Your task to perform on an android device: turn on bluetooth scan Image 0: 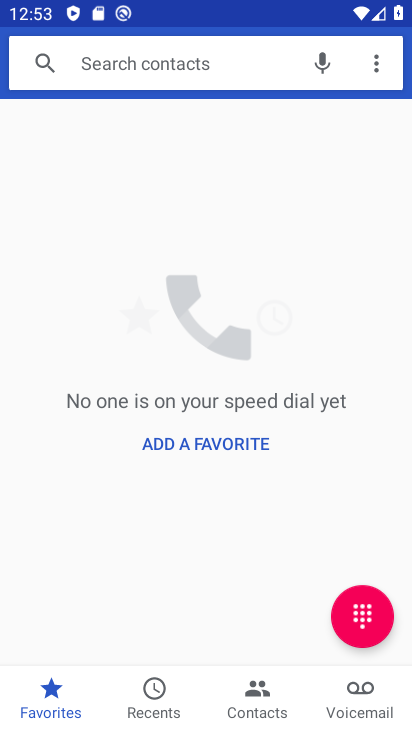
Step 0: press home button
Your task to perform on an android device: turn on bluetooth scan Image 1: 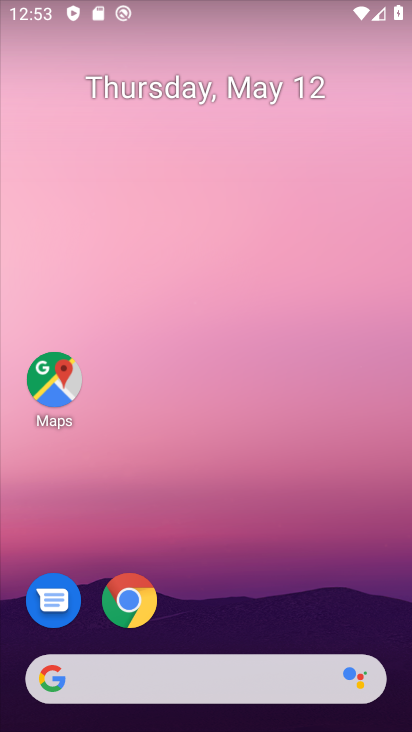
Step 1: drag from (192, 640) to (274, 124)
Your task to perform on an android device: turn on bluetooth scan Image 2: 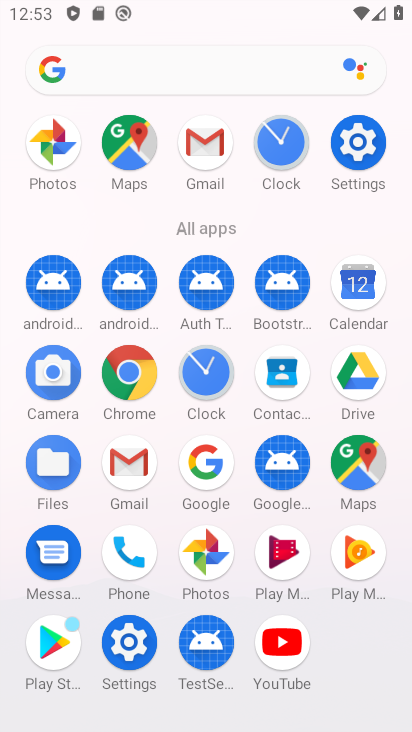
Step 2: click (135, 646)
Your task to perform on an android device: turn on bluetooth scan Image 3: 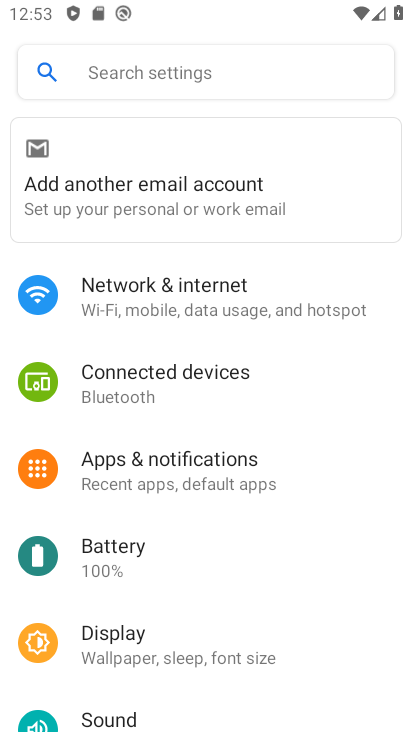
Step 3: click (248, 383)
Your task to perform on an android device: turn on bluetooth scan Image 4: 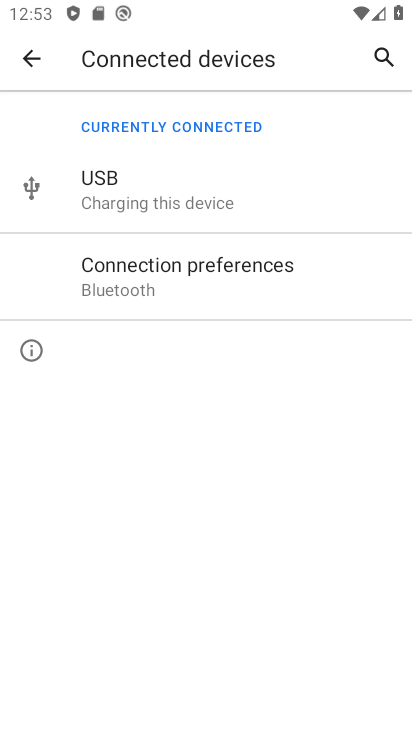
Step 4: click (228, 260)
Your task to perform on an android device: turn on bluetooth scan Image 5: 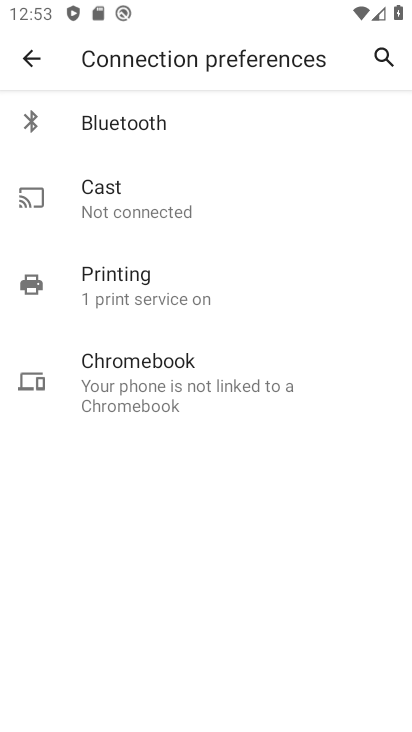
Step 5: click (197, 142)
Your task to perform on an android device: turn on bluetooth scan Image 6: 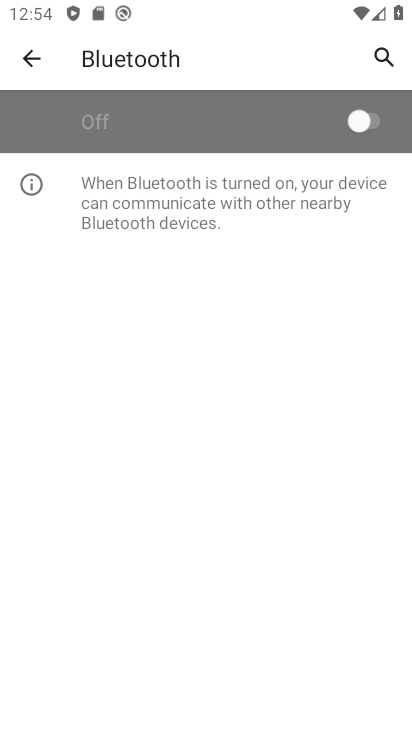
Step 6: click (382, 118)
Your task to perform on an android device: turn on bluetooth scan Image 7: 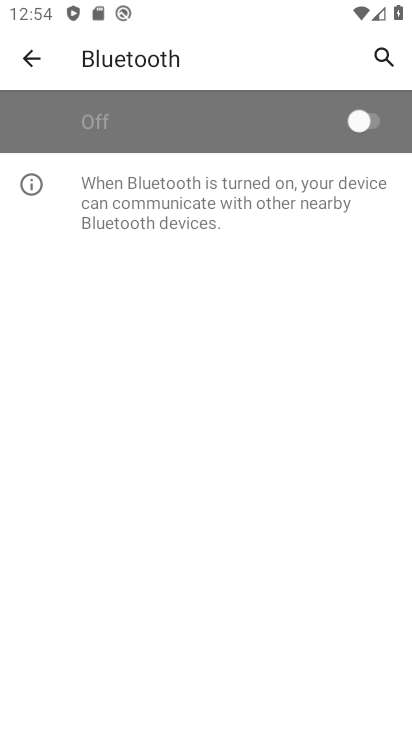
Step 7: click (362, 117)
Your task to perform on an android device: turn on bluetooth scan Image 8: 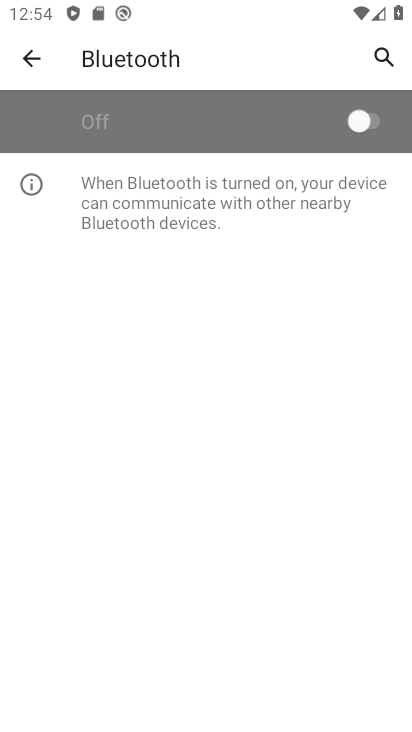
Step 8: click (384, 116)
Your task to perform on an android device: turn on bluetooth scan Image 9: 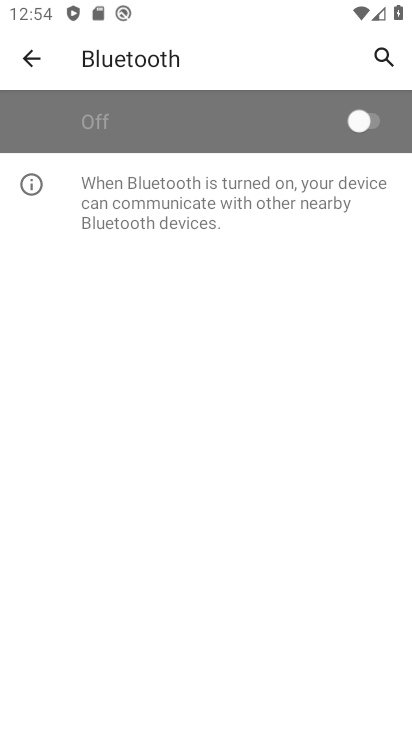
Step 9: click (383, 117)
Your task to perform on an android device: turn on bluetooth scan Image 10: 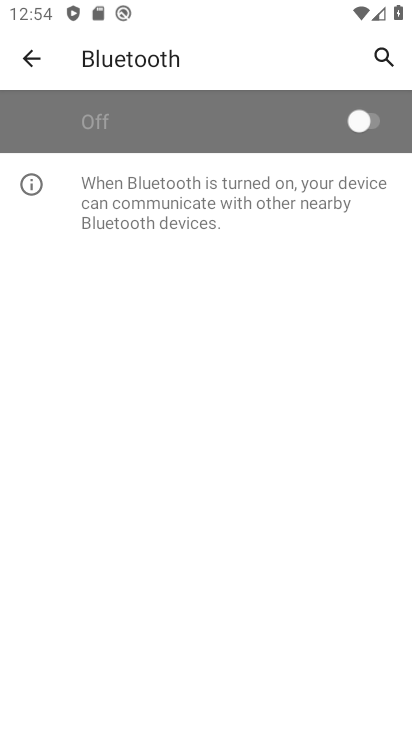
Step 10: task complete